Your task to perform on an android device: Show me popular games on the Play Store Image 0: 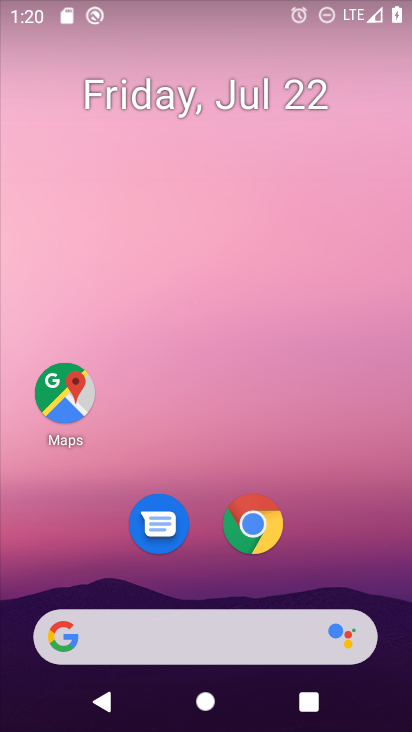
Step 0: drag from (331, 511) to (332, 11)
Your task to perform on an android device: Show me popular games on the Play Store Image 1: 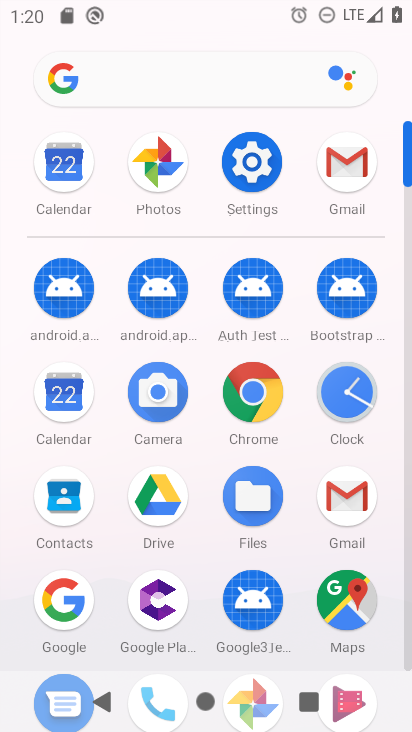
Step 1: drag from (199, 464) to (237, 146)
Your task to perform on an android device: Show me popular games on the Play Store Image 2: 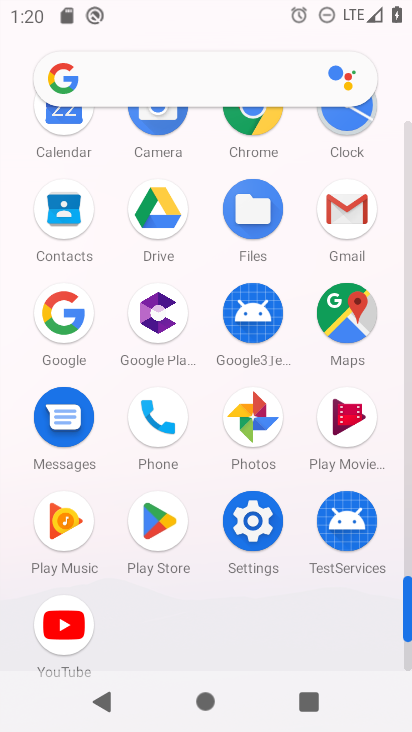
Step 2: click (163, 513)
Your task to perform on an android device: Show me popular games on the Play Store Image 3: 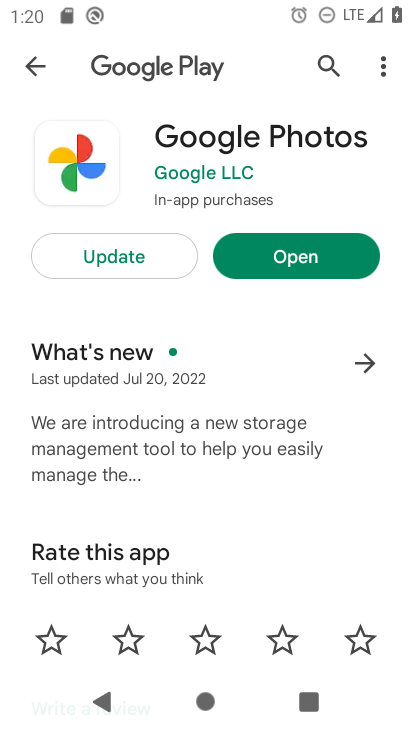
Step 3: click (36, 59)
Your task to perform on an android device: Show me popular games on the Play Store Image 4: 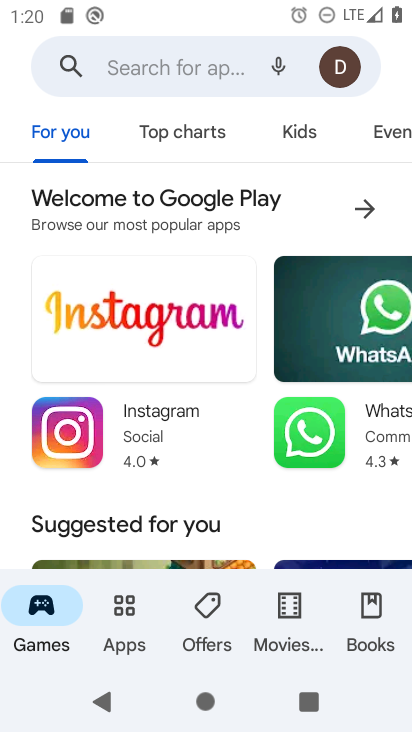
Step 4: click (63, 609)
Your task to perform on an android device: Show me popular games on the Play Store Image 5: 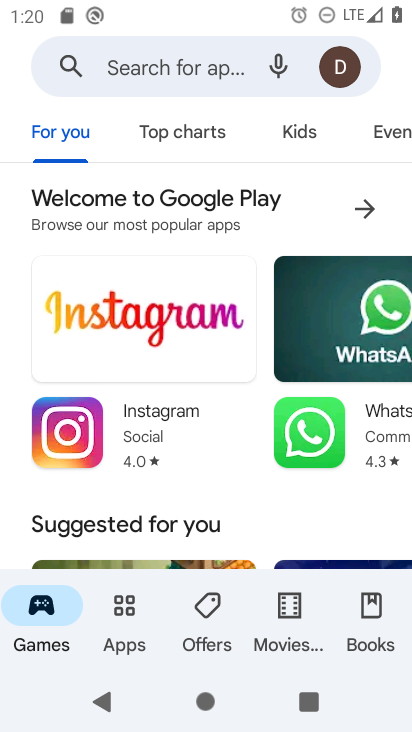
Step 5: drag from (248, 474) to (288, 71)
Your task to perform on an android device: Show me popular games on the Play Store Image 6: 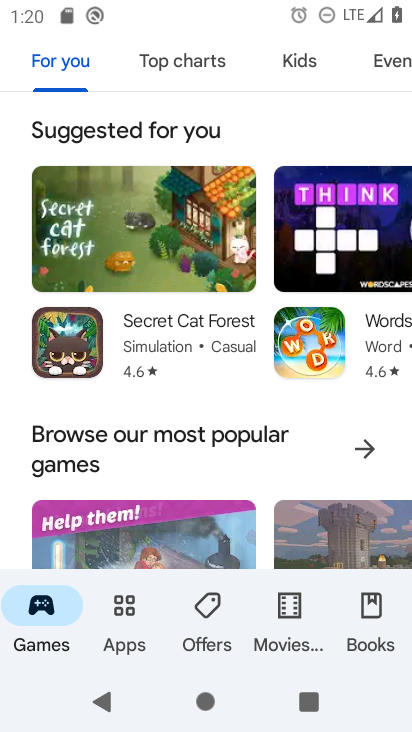
Step 6: click (369, 447)
Your task to perform on an android device: Show me popular games on the Play Store Image 7: 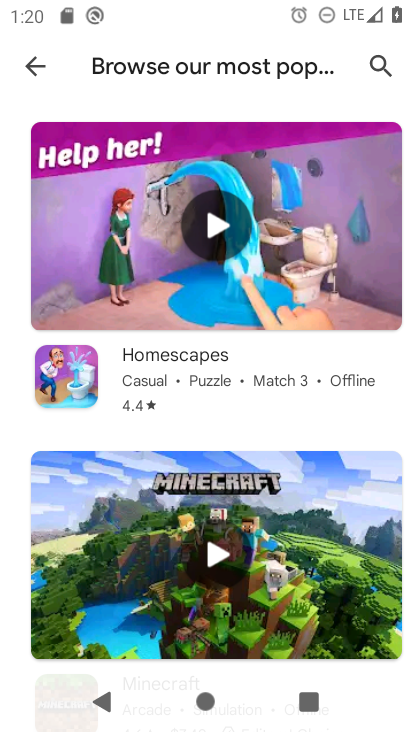
Step 7: task complete